Your task to perform on an android device: empty trash in google photos Image 0: 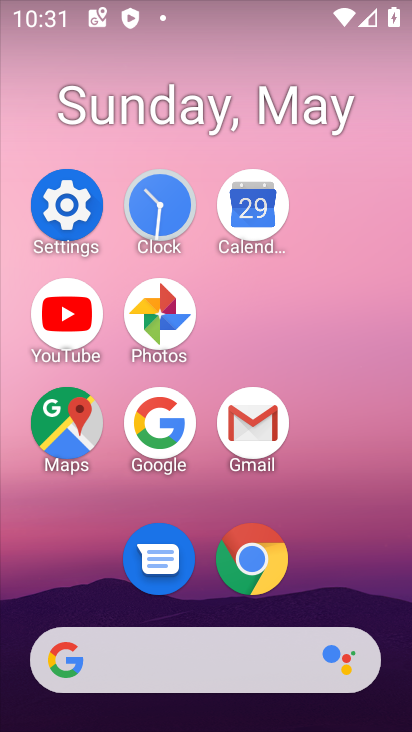
Step 0: click (144, 335)
Your task to perform on an android device: empty trash in google photos Image 1: 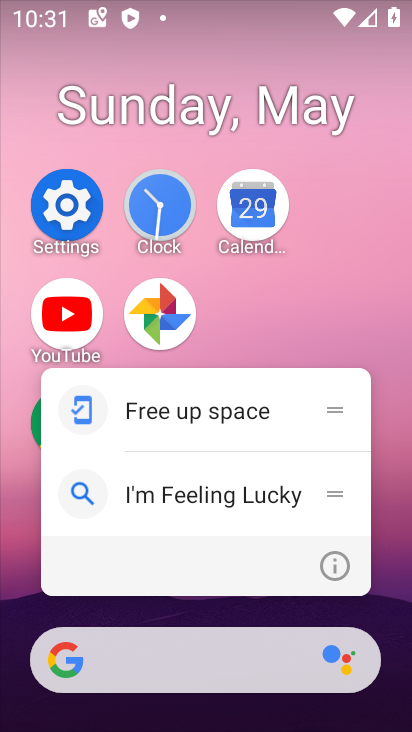
Step 1: click (154, 322)
Your task to perform on an android device: empty trash in google photos Image 2: 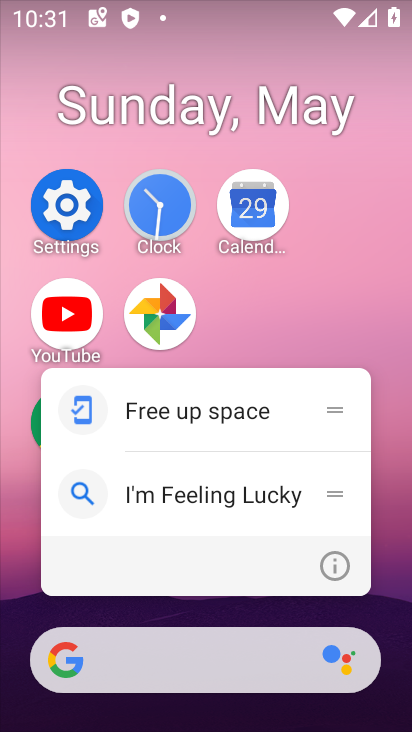
Step 2: click (154, 322)
Your task to perform on an android device: empty trash in google photos Image 3: 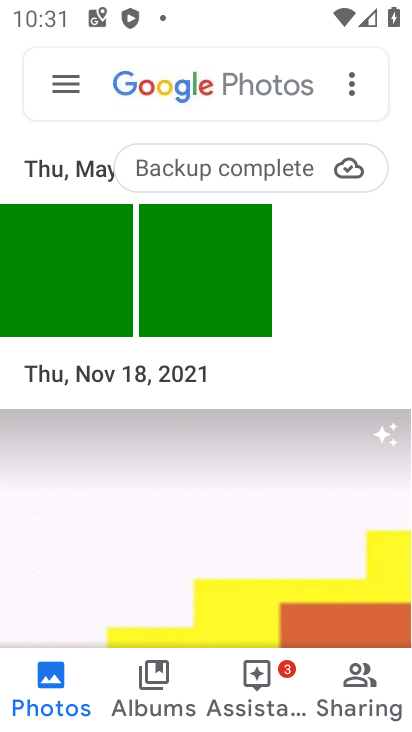
Step 3: click (59, 63)
Your task to perform on an android device: empty trash in google photos Image 4: 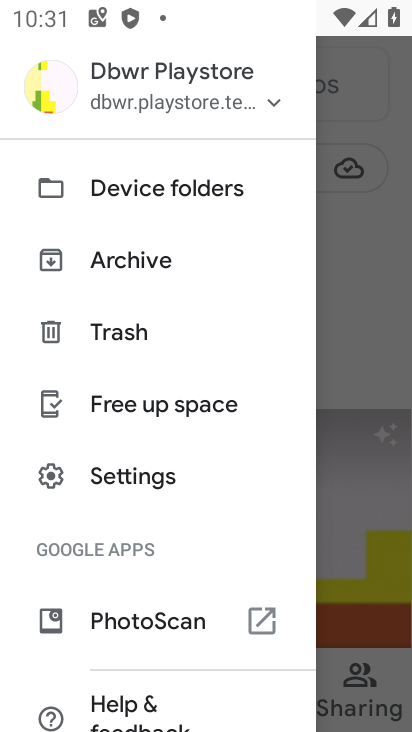
Step 4: click (171, 342)
Your task to perform on an android device: empty trash in google photos Image 5: 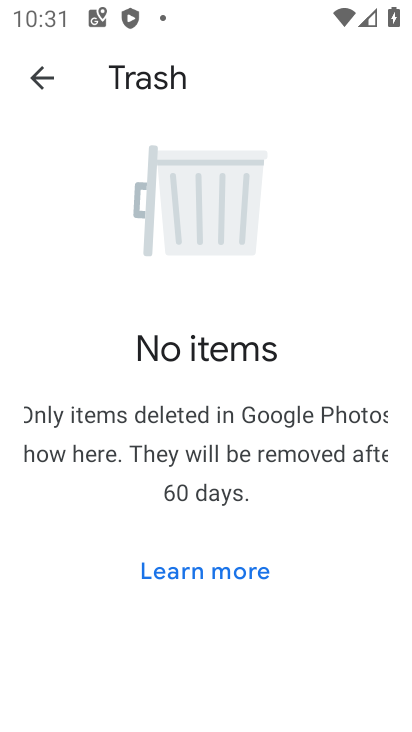
Step 5: task complete